Your task to perform on an android device: When is my next meeting? Image 0: 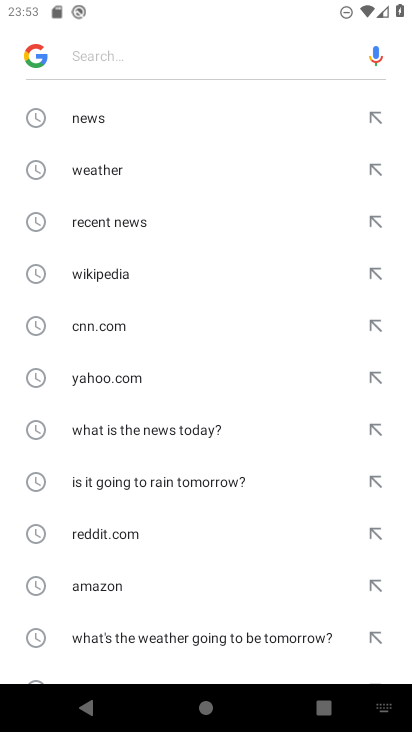
Step 0: press home button
Your task to perform on an android device: When is my next meeting? Image 1: 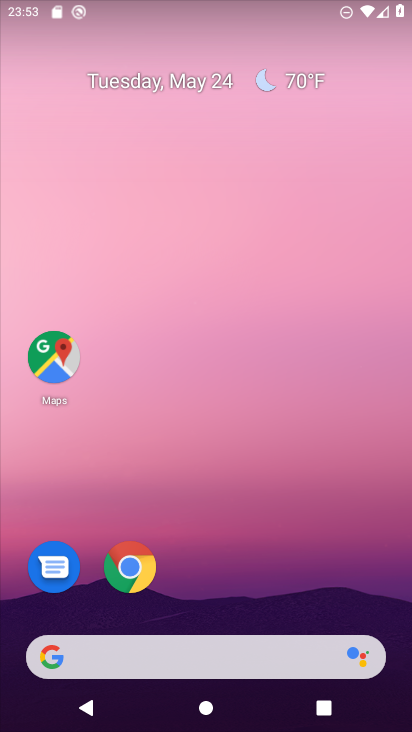
Step 1: click (188, 83)
Your task to perform on an android device: When is my next meeting? Image 2: 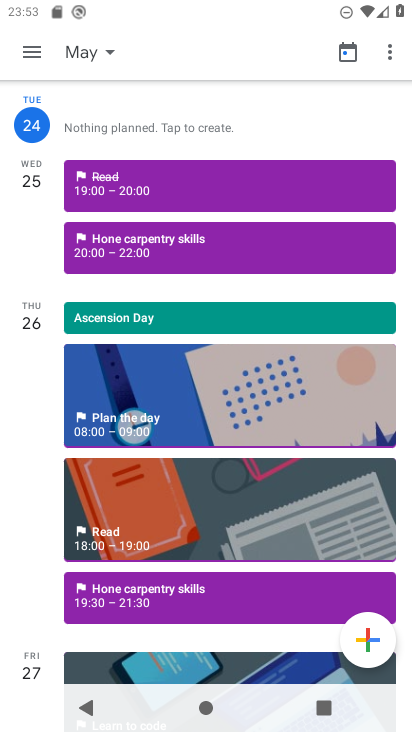
Step 2: task complete